Your task to perform on an android device: Show me the alarms in the clock app Image 0: 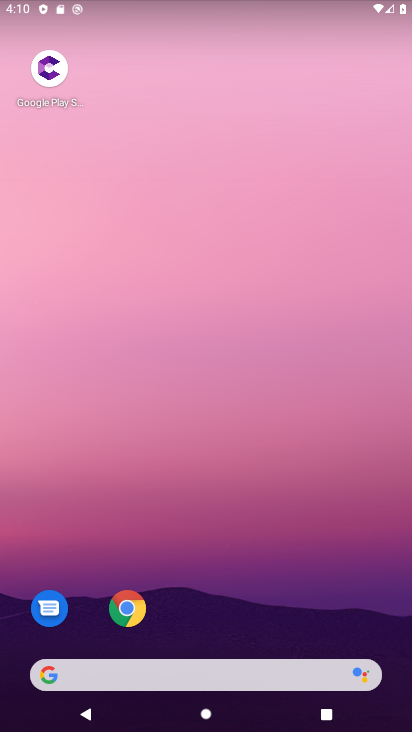
Step 0: drag from (235, 603) to (240, 280)
Your task to perform on an android device: Show me the alarms in the clock app Image 1: 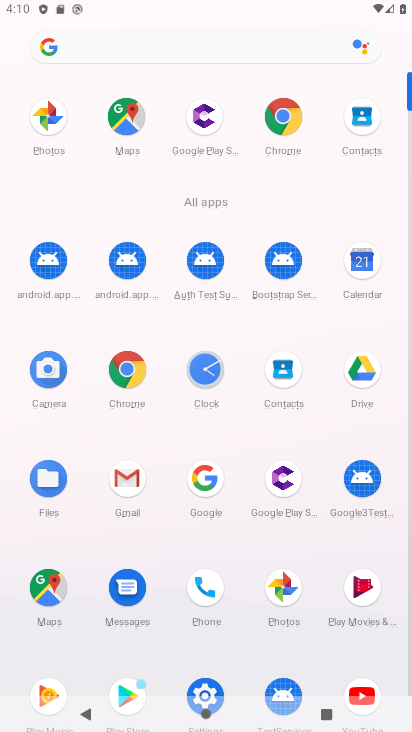
Step 1: click (223, 376)
Your task to perform on an android device: Show me the alarms in the clock app Image 2: 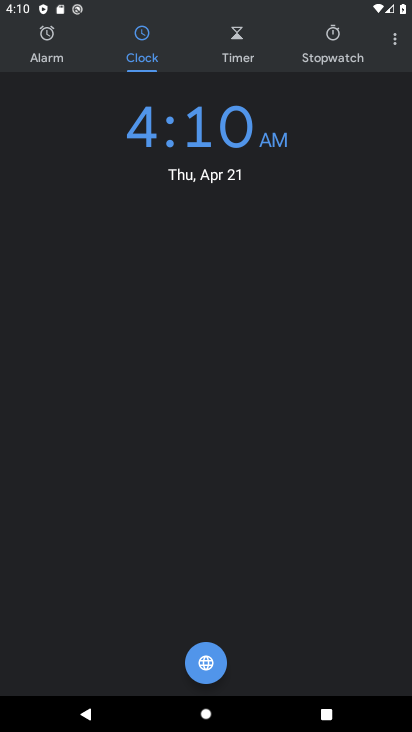
Step 2: click (47, 51)
Your task to perform on an android device: Show me the alarms in the clock app Image 3: 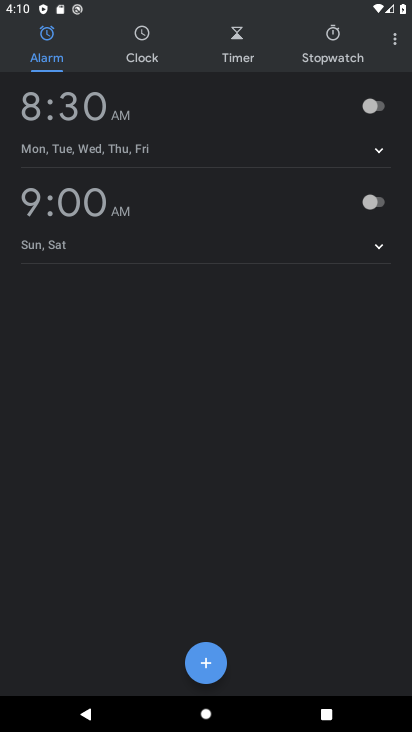
Step 3: click (379, 102)
Your task to perform on an android device: Show me the alarms in the clock app Image 4: 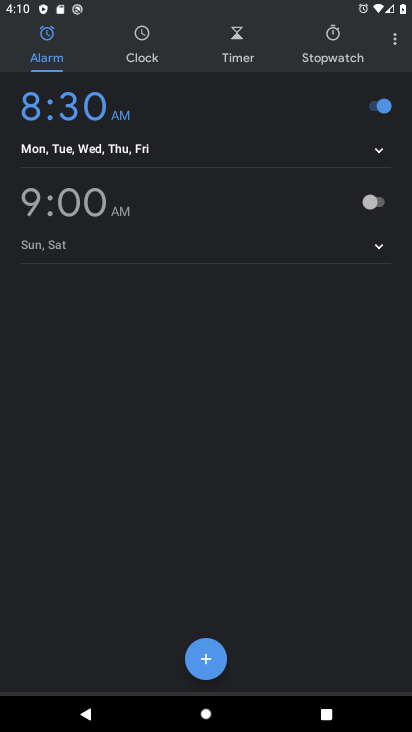
Step 4: click (378, 112)
Your task to perform on an android device: Show me the alarms in the clock app Image 5: 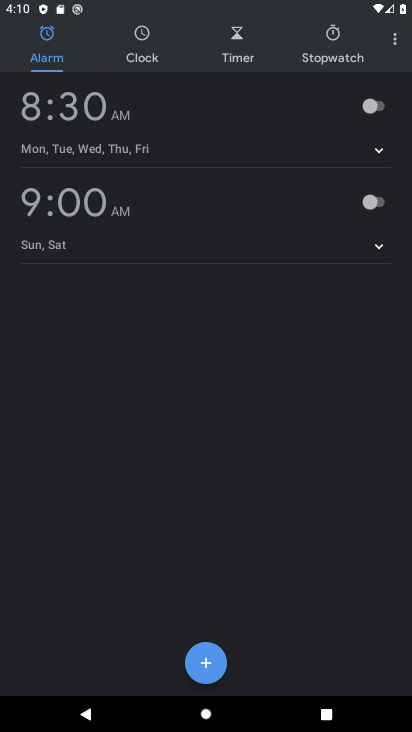
Step 5: task complete